Your task to perform on an android device: set an alarm Image 0: 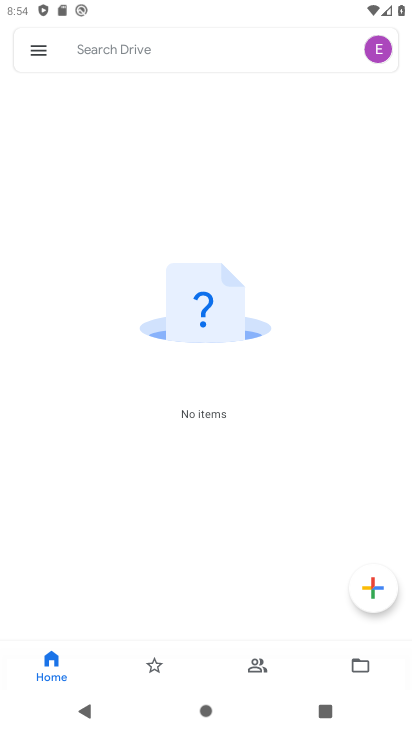
Step 0: press home button
Your task to perform on an android device: set an alarm Image 1: 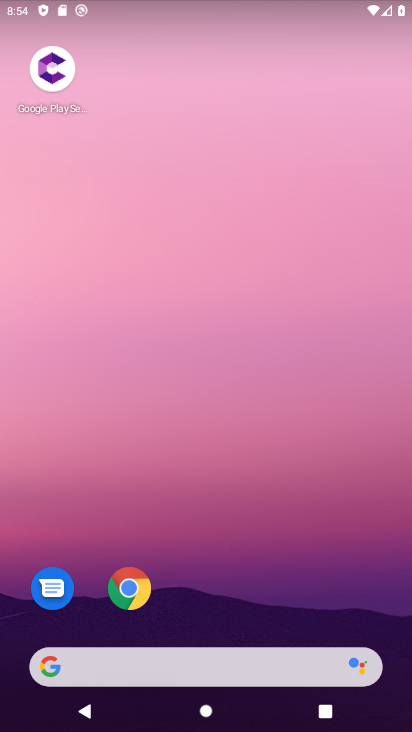
Step 1: drag from (222, 587) to (257, 158)
Your task to perform on an android device: set an alarm Image 2: 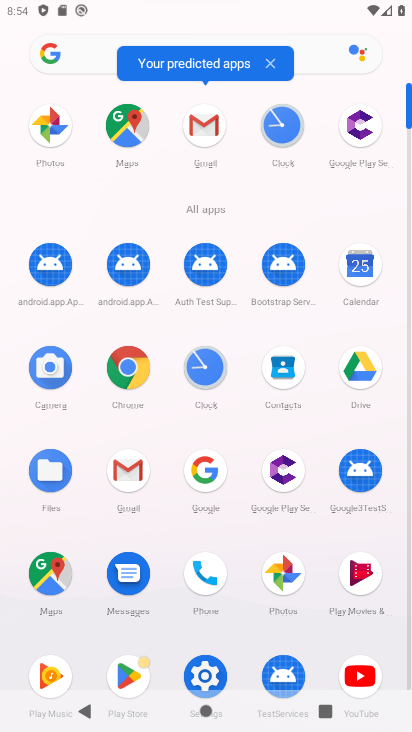
Step 2: click (199, 367)
Your task to perform on an android device: set an alarm Image 3: 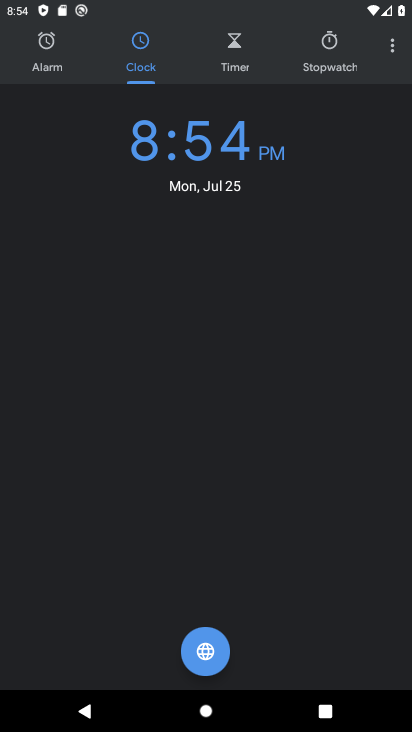
Step 3: click (47, 52)
Your task to perform on an android device: set an alarm Image 4: 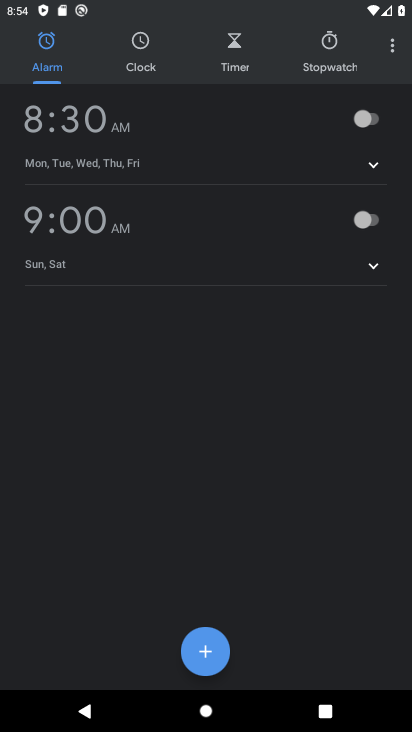
Step 4: click (202, 629)
Your task to perform on an android device: set an alarm Image 5: 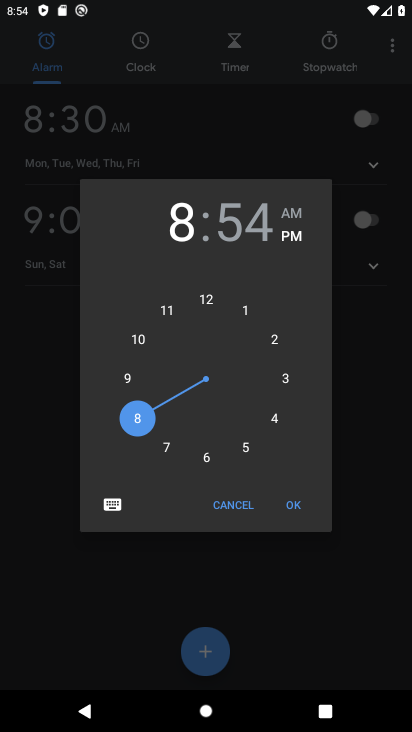
Step 5: click (204, 455)
Your task to perform on an android device: set an alarm Image 6: 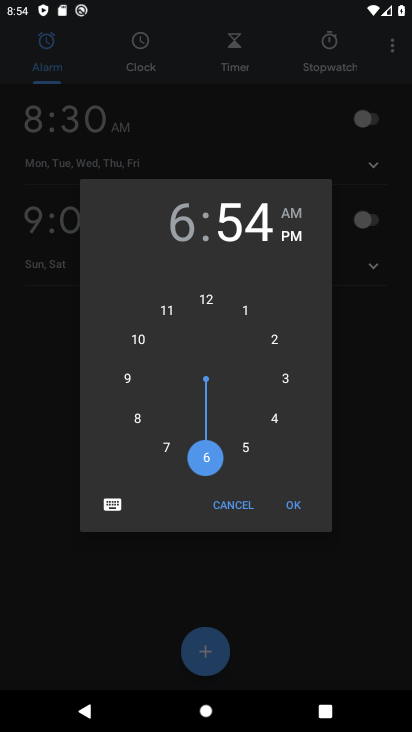
Step 6: click (204, 455)
Your task to perform on an android device: set an alarm Image 7: 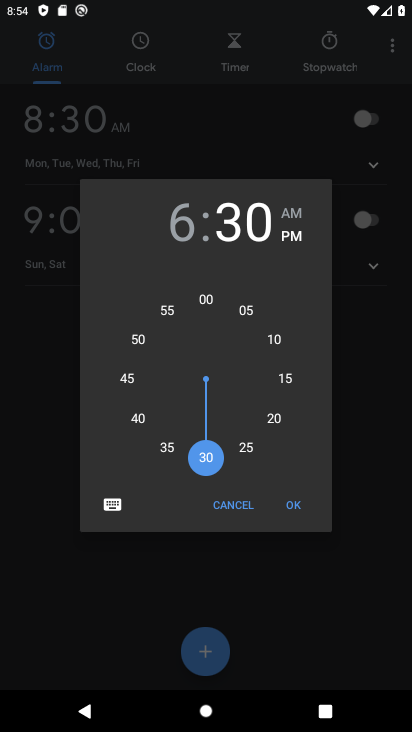
Step 7: click (290, 500)
Your task to perform on an android device: set an alarm Image 8: 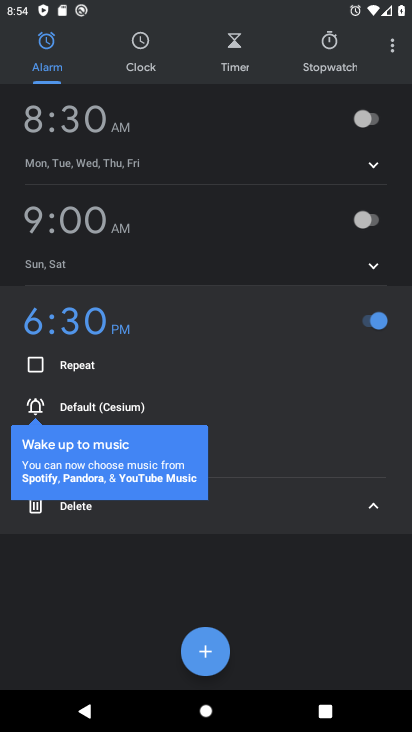
Step 8: task complete